Your task to perform on an android device: Open Google Maps and go to "Timeline" Image 0: 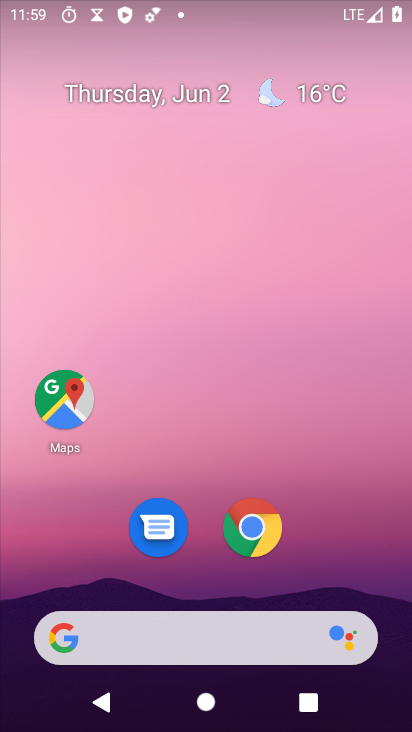
Step 0: click (65, 385)
Your task to perform on an android device: Open Google Maps and go to "Timeline" Image 1: 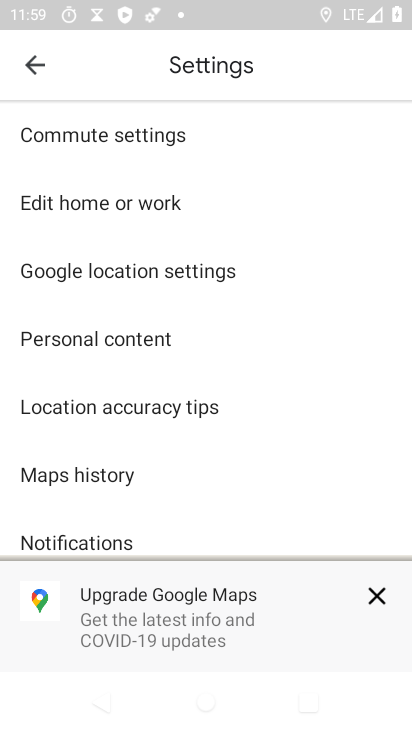
Step 1: click (29, 70)
Your task to perform on an android device: Open Google Maps and go to "Timeline" Image 2: 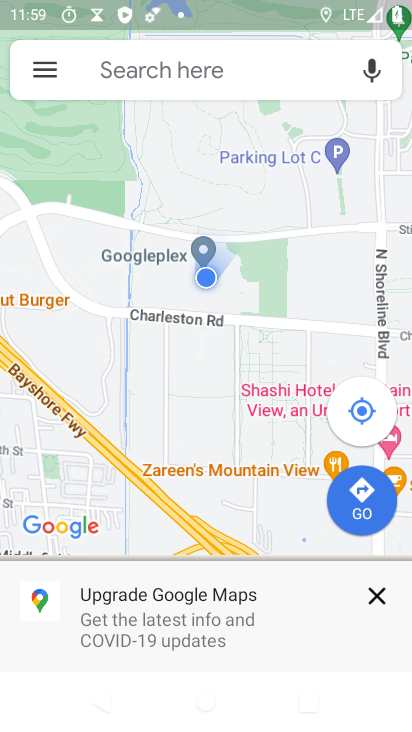
Step 2: click (29, 70)
Your task to perform on an android device: Open Google Maps and go to "Timeline" Image 3: 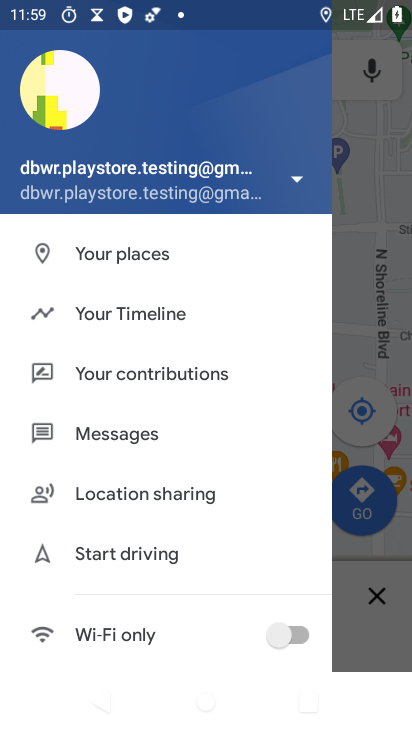
Step 3: click (131, 317)
Your task to perform on an android device: Open Google Maps and go to "Timeline" Image 4: 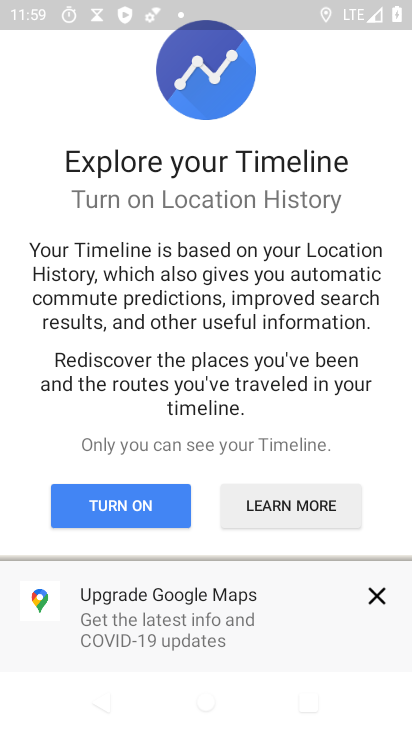
Step 4: click (115, 500)
Your task to perform on an android device: Open Google Maps and go to "Timeline" Image 5: 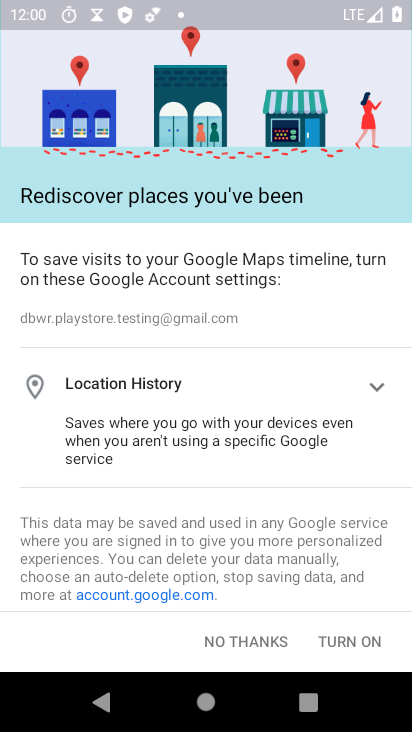
Step 5: click (346, 646)
Your task to perform on an android device: Open Google Maps and go to "Timeline" Image 6: 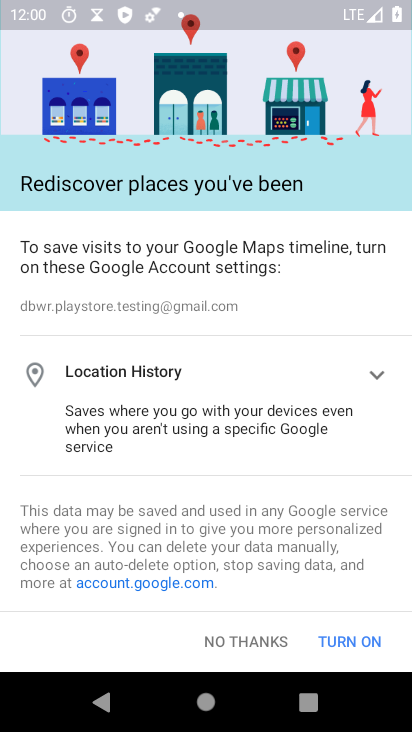
Step 6: click (346, 646)
Your task to perform on an android device: Open Google Maps and go to "Timeline" Image 7: 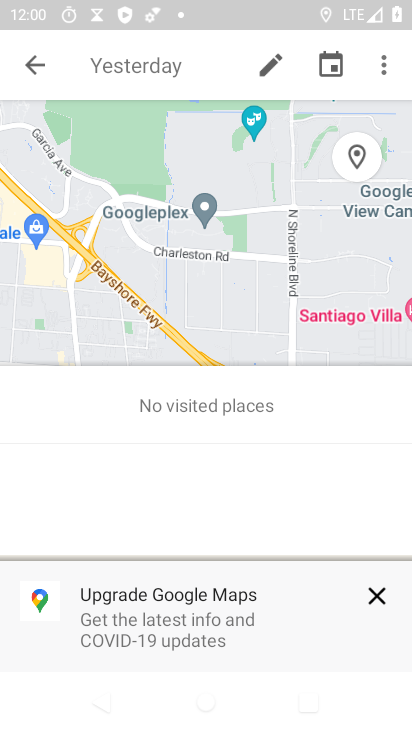
Step 7: task complete